Your task to perform on an android device: Open notification settings Image 0: 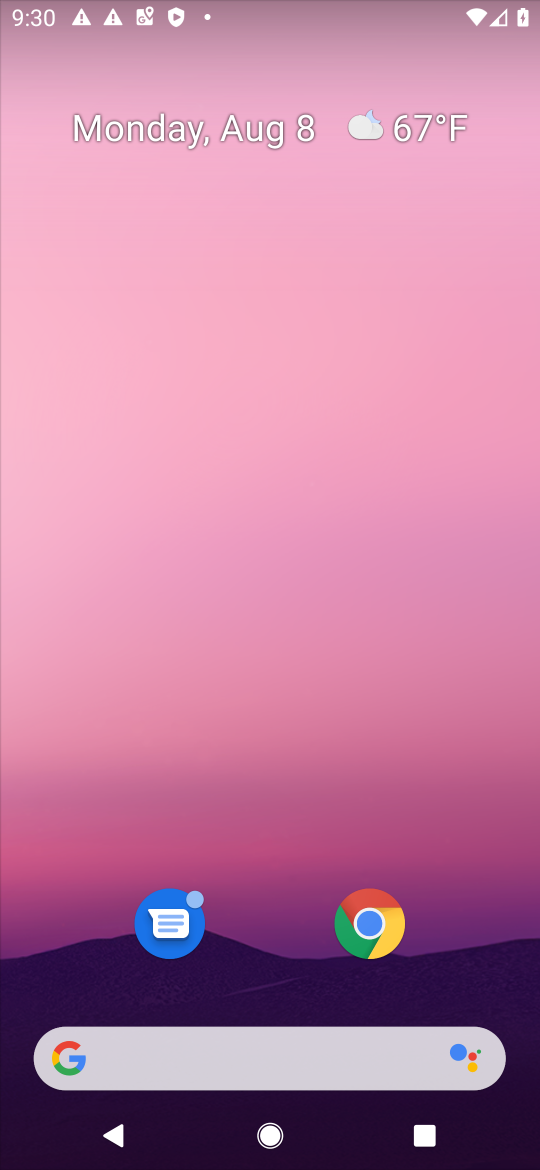
Step 0: drag from (27, 1107) to (235, 318)
Your task to perform on an android device: Open notification settings Image 1: 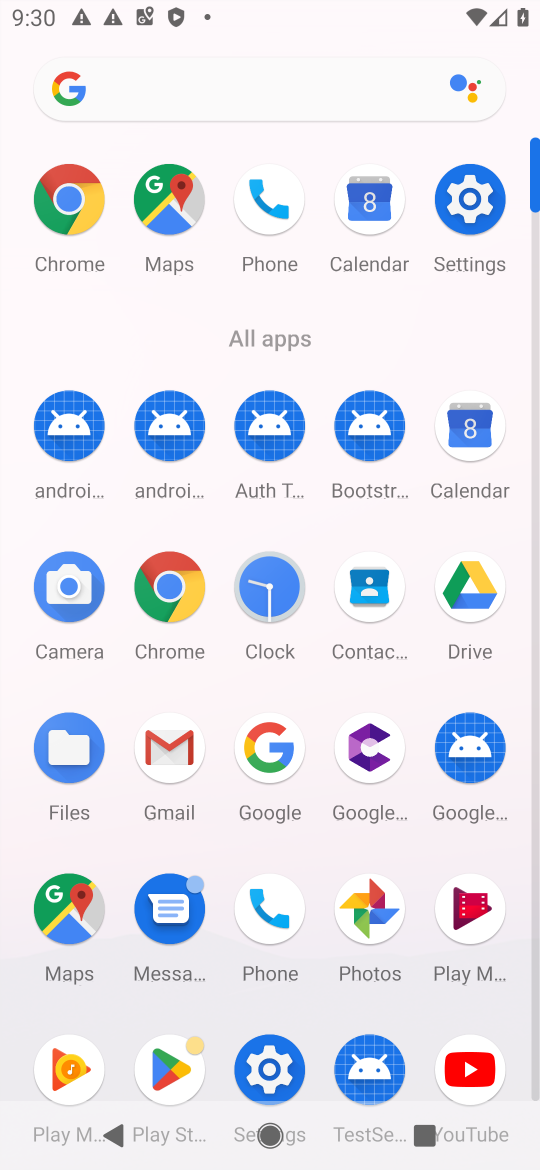
Step 1: click (291, 1060)
Your task to perform on an android device: Open notification settings Image 2: 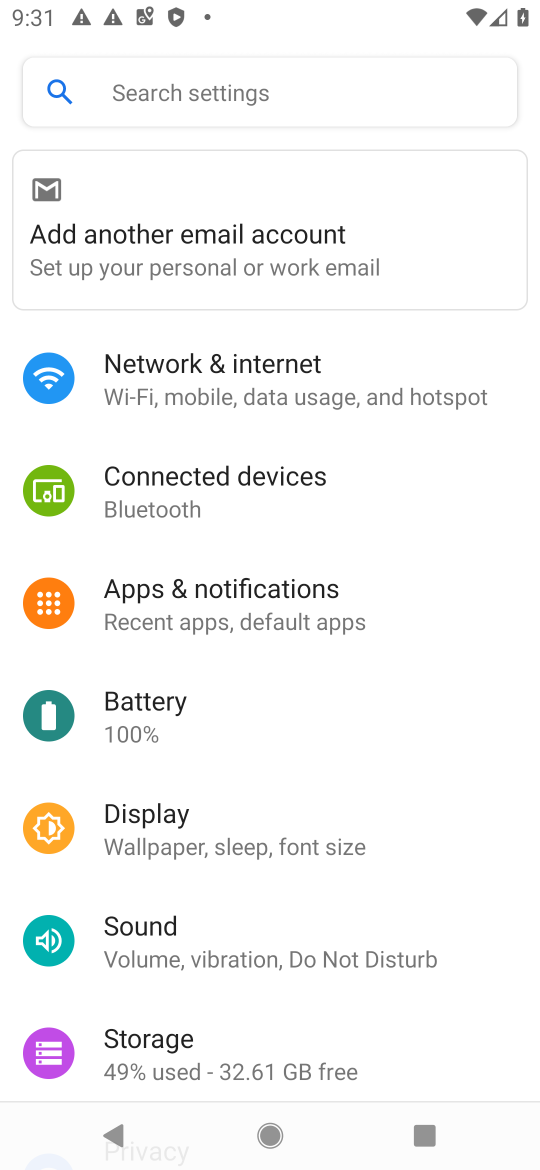
Step 2: click (270, 600)
Your task to perform on an android device: Open notification settings Image 3: 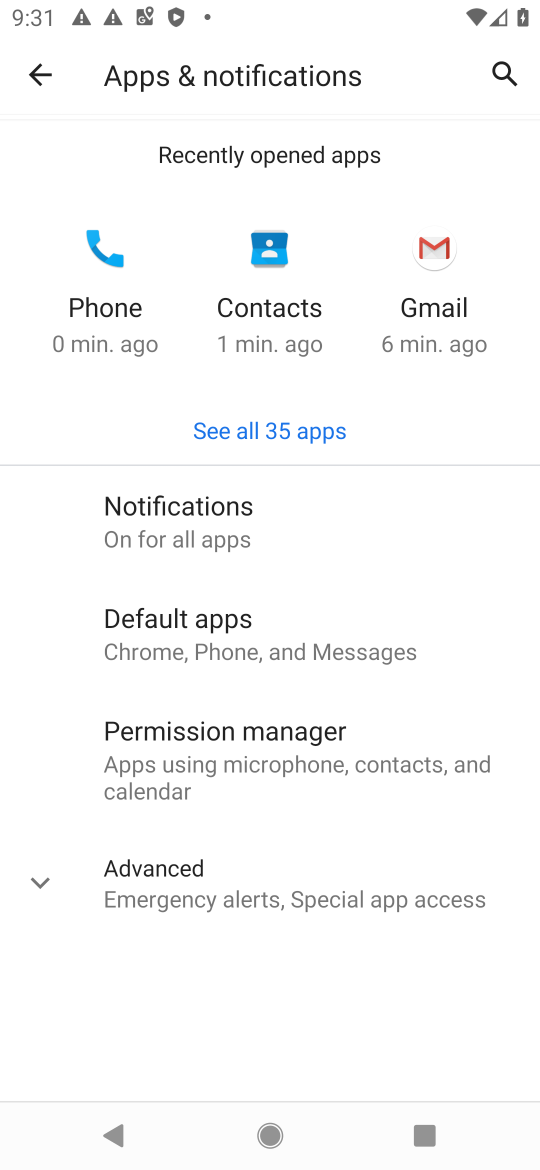
Step 3: task complete